Your task to perform on an android device: Do I have any events today? Image 0: 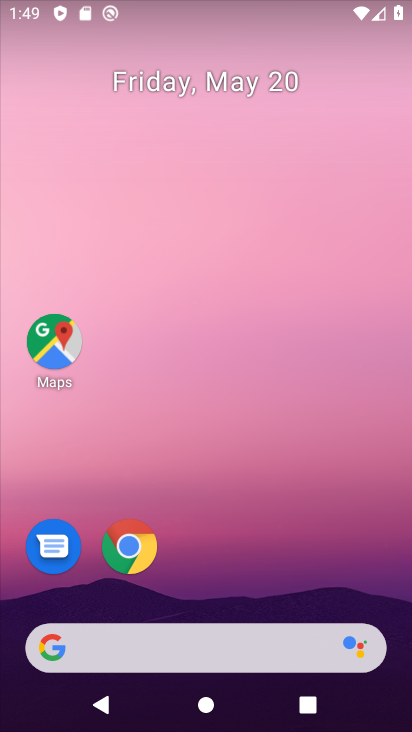
Step 0: drag from (203, 593) to (162, 16)
Your task to perform on an android device: Do I have any events today? Image 1: 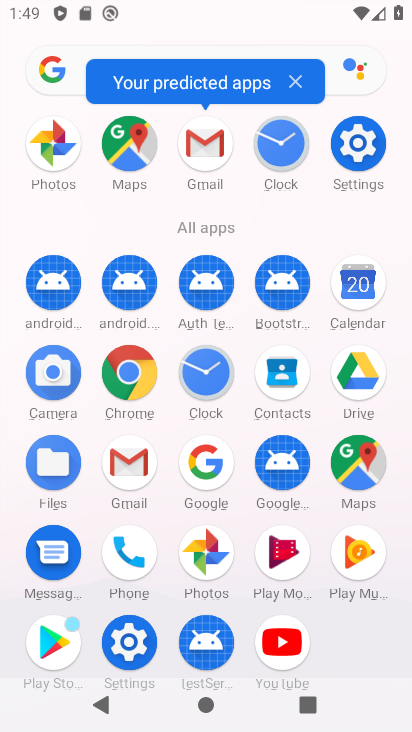
Step 1: click (348, 299)
Your task to perform on an android device: Do I have any events today? Image 2: 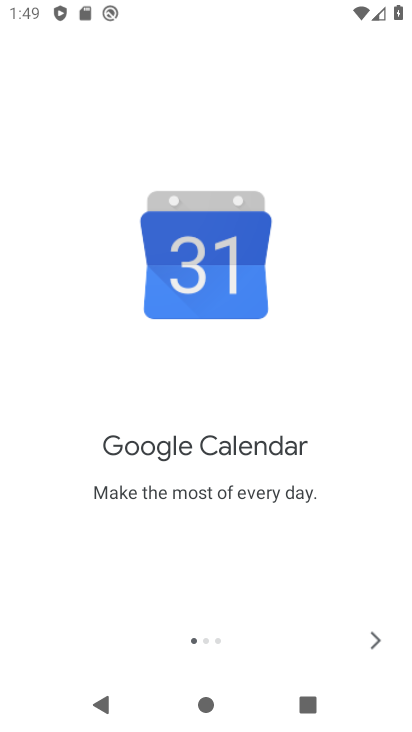
Step 2: click (373, 652)
Your task to perform on an android device: Do I have any events today? Image 3: 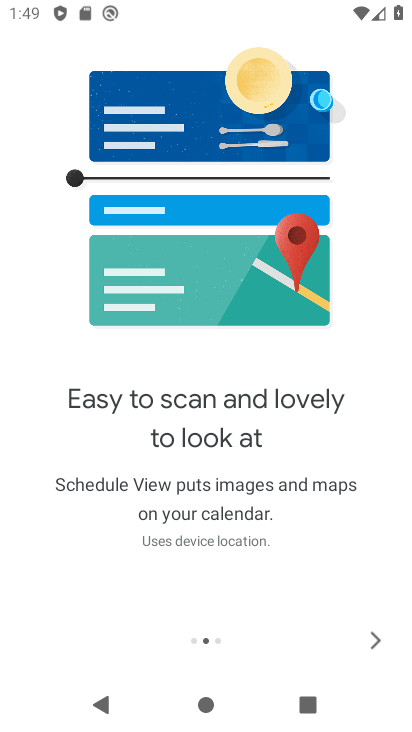
Step 3: click (379, 641)
Your task to perform on an android device: Do I have any events today? Image 4: 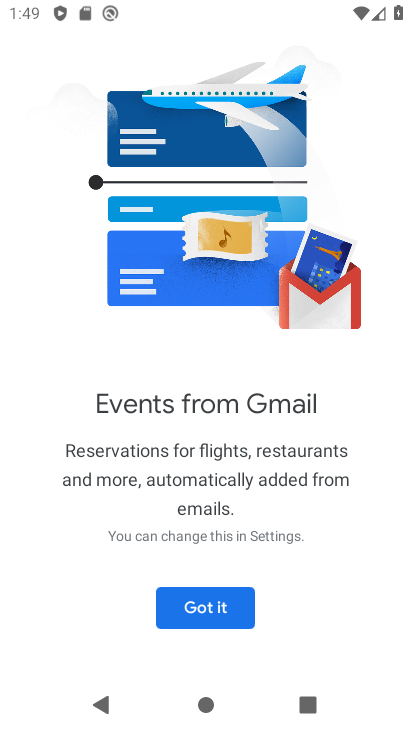
Step 4: click (220, 614)
Your task to perform on an android device: Do I have any events today? Image 5: 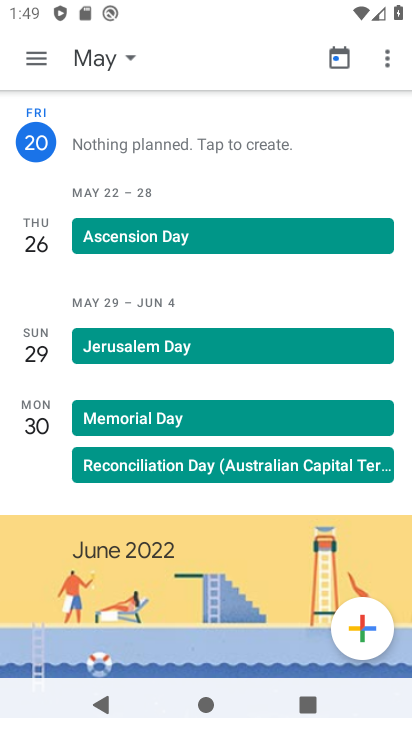
Step 5: click (44, 142)
Your task to perform on an android device: Do I have any events today? Image 6: 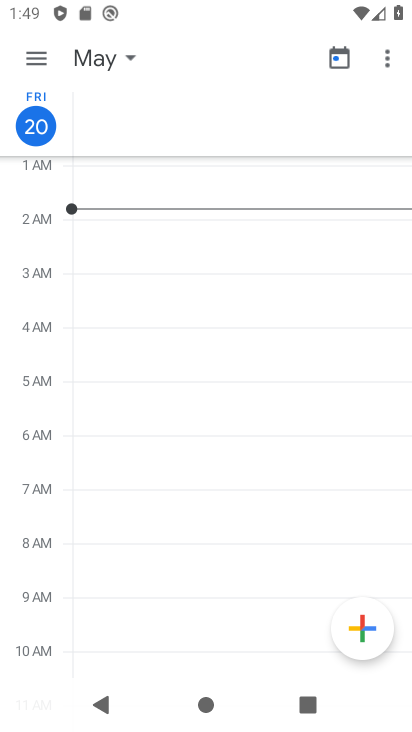
Step 6: task complete